Your task to perform on an android device: Search for vegetarian restaurants on Maps Image 0: 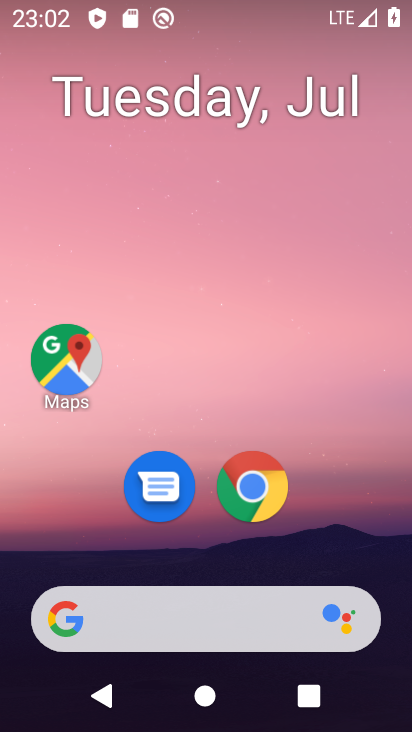
Step 0: press home button
Your task to perform on an android device: Search for vegetarian restaurants on Maps Image 1: 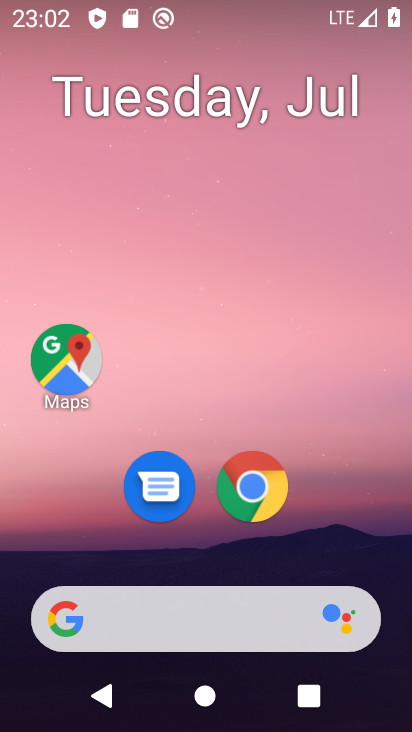
Step 1: drag from (367, 533) to (347, 183)
Your task to perform on an android device: Search for vegetarian restaurants on Maps Image 2: 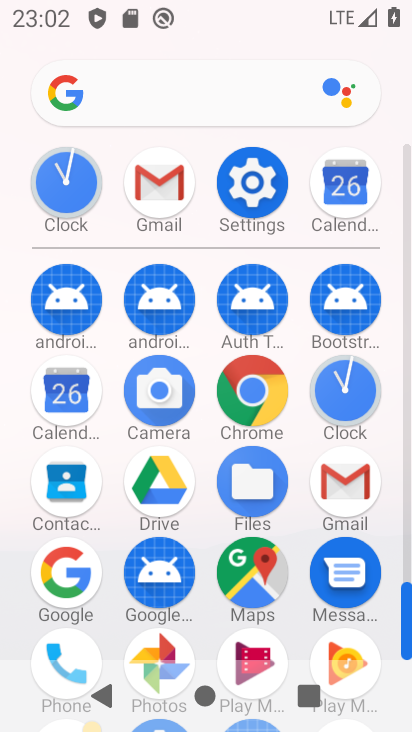
Step 2: click (267, 570)
Your task to perform on an android device: Search for vegetarian restaurants on Maps Image 3: 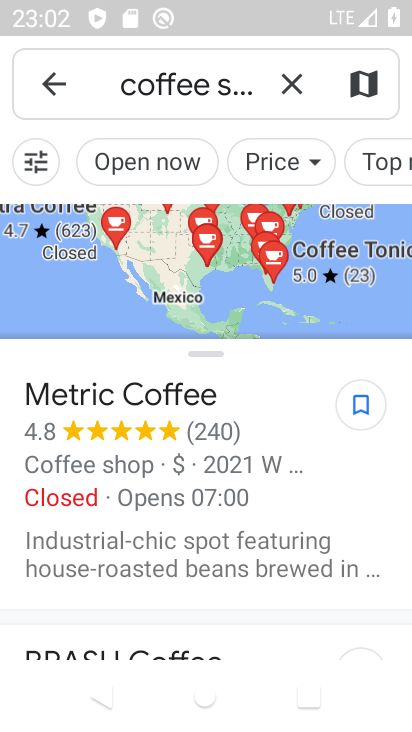
Step 3: press back button
Your task to perform on an android device: Search for vegetarian restaurants on Maps Image 4: 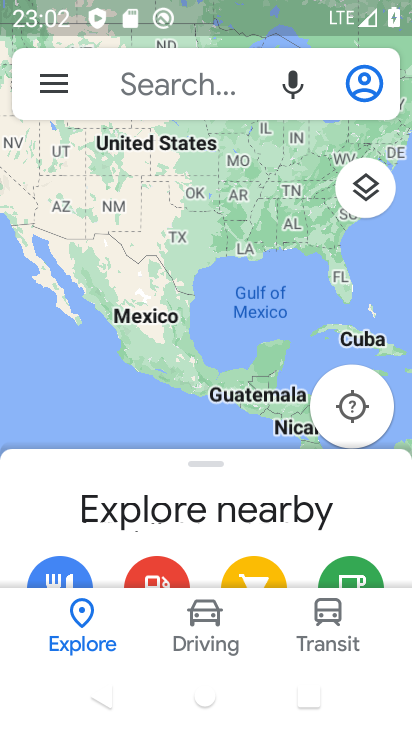
Step 4: click (180, 85)
Your task to perform on an android device: Search for vegetarian restaurants on Maps Image 5: 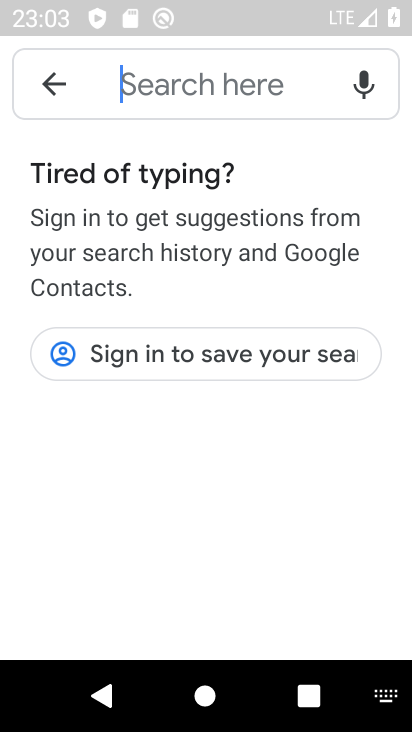
Step 5: type "vegetrain restaurants"
Your task to perform on an android device: Search for vegetarian restaurants on Maps Image 6: 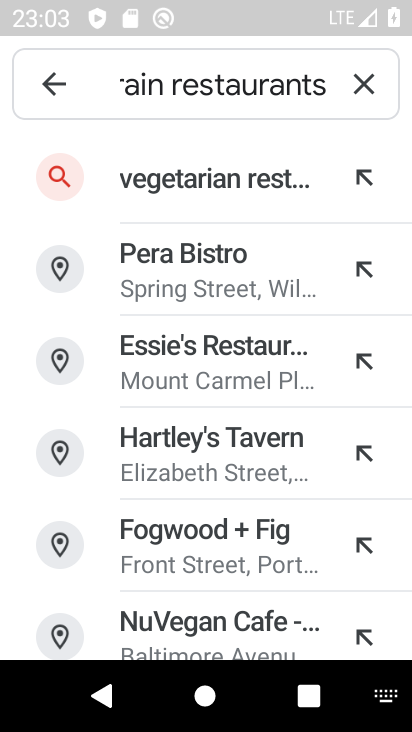
Step 6: click (270, 198)
Your task to perform on an android device: Search for vegetarian restaurants on Maps Image 7: 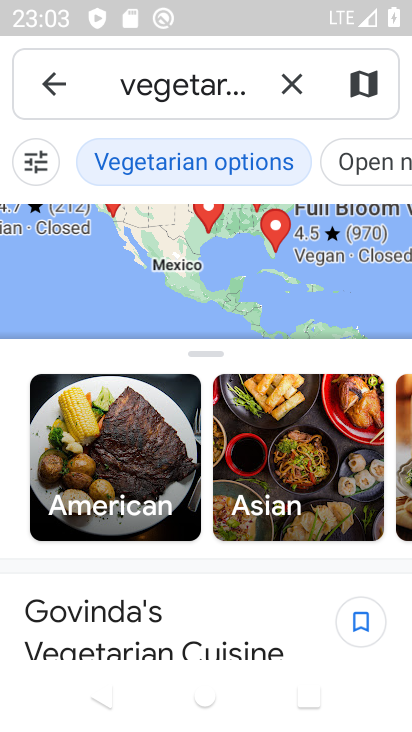
Step 7: task complete